Your task to perform on an android device: open chrome and create a bookmark for the current page Image 0: 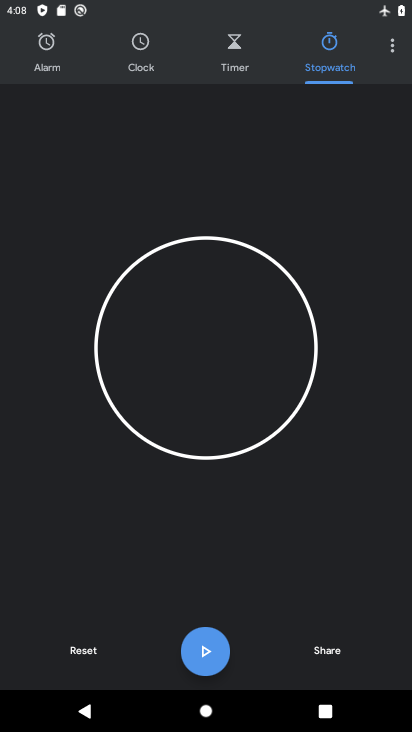
Step 0: press home button
Your task to perform on an android device: open chrome and create a bookmark for the current page Image 1: 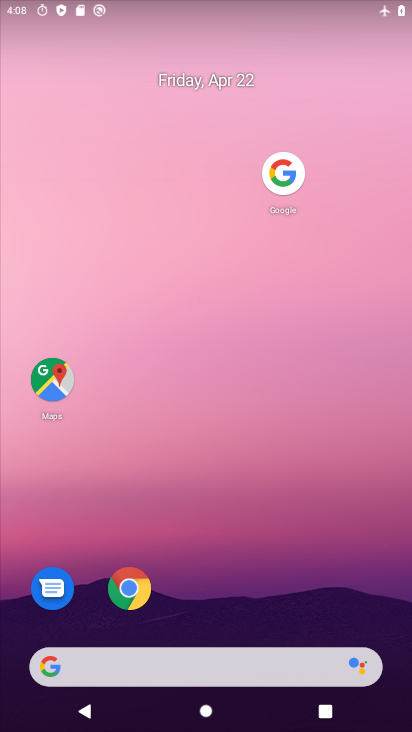
Step 1: click (140, 600)
Your task to perform on an android device: open chrome and create a bookmark for the current page Image 2: 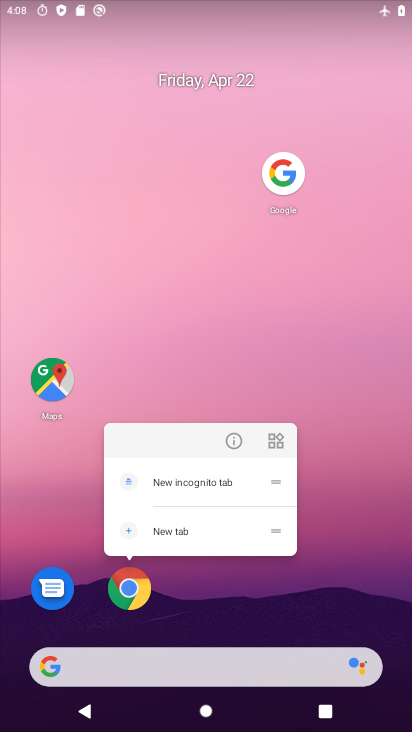
Step 2: click (140, 600)
Your task to perform on an android device: open chrome and create a bookmark for the current page Image 3: 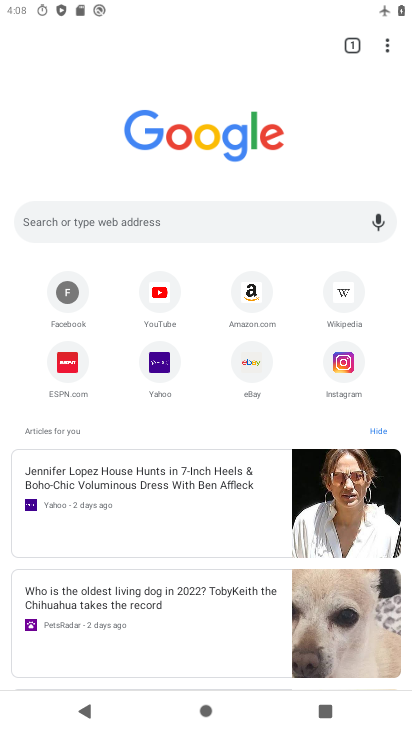
Step 3: task complete